Your task to perform on an android device: Open Reddit.com Image 0: 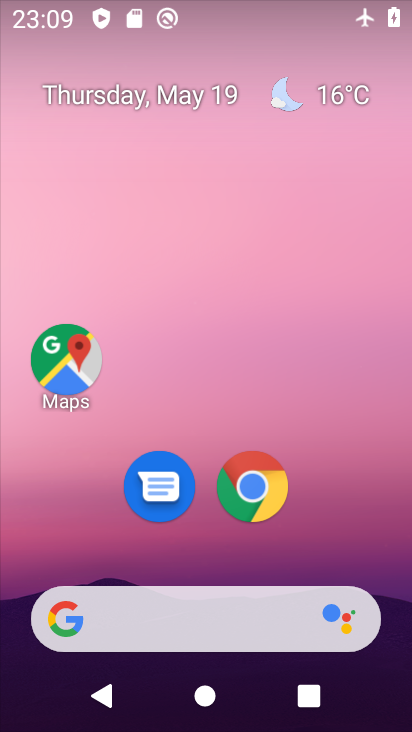
Step 0: click (281, 513)
Your task to perform on an android device: Open Reddit.com Image 1: 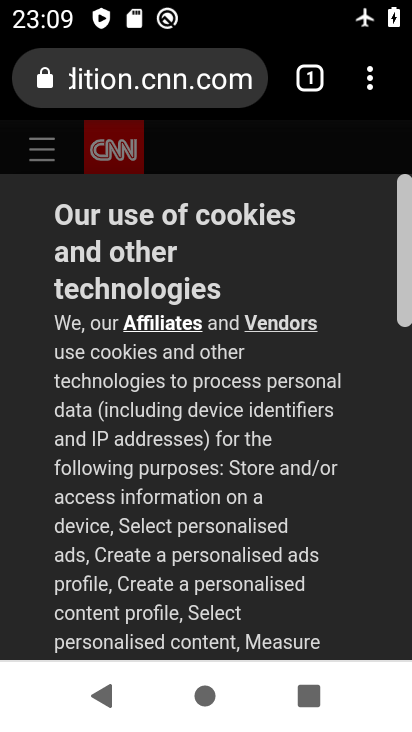
Step 1: click (281, 513)
Your task to perform on an android device: Open Reddit.com Image 2: 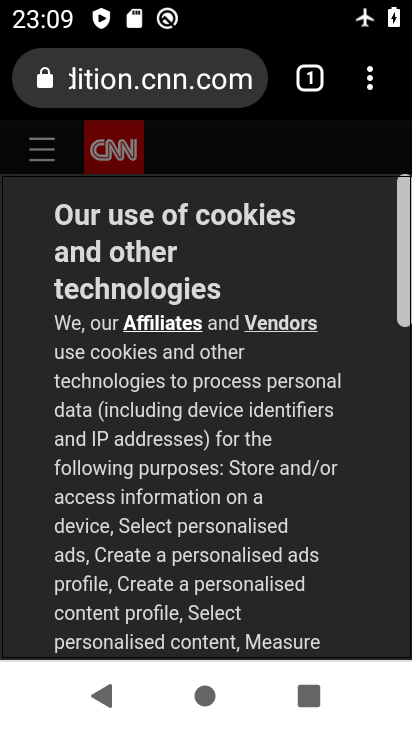
Step 2: click (230, 70)
Your task to perform on an android device: Open Reddit.com Image 3: 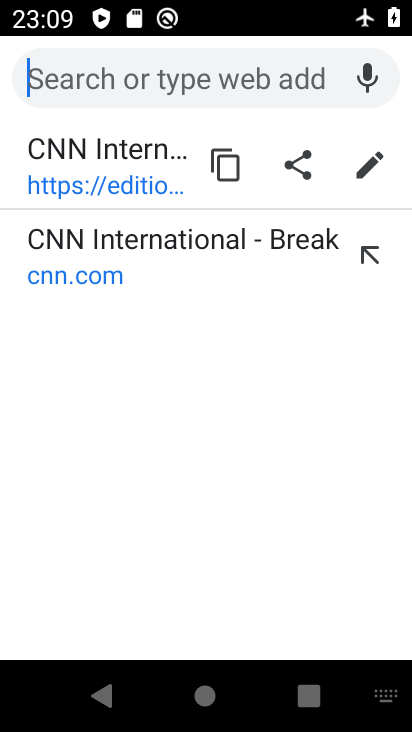
Step 3: type "reddit.com"
Your task to perform on an android device: Open Reddit.com Image 4: 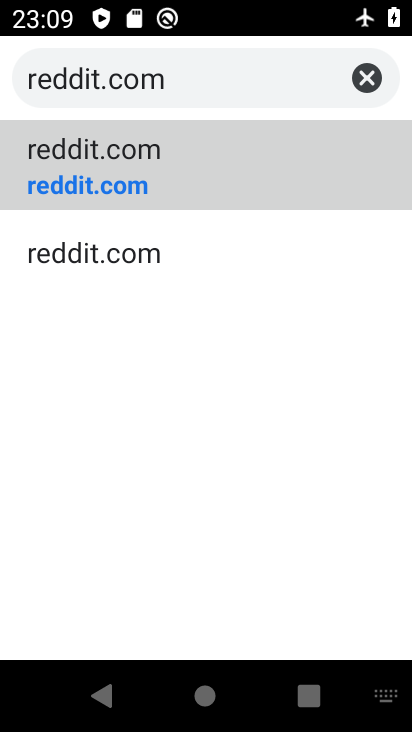
Step 4: click (225, 180)
Your task to perform on an android device: Open Reddit.com Image 5: 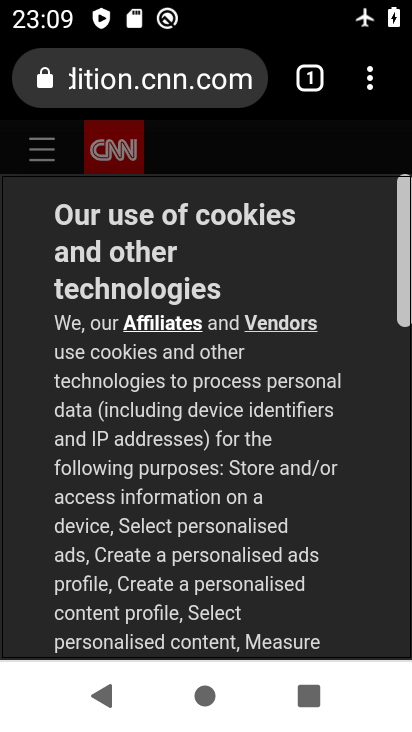
Step 5: task complete